Your task to perform on an android device: change notifications settings Image 0: 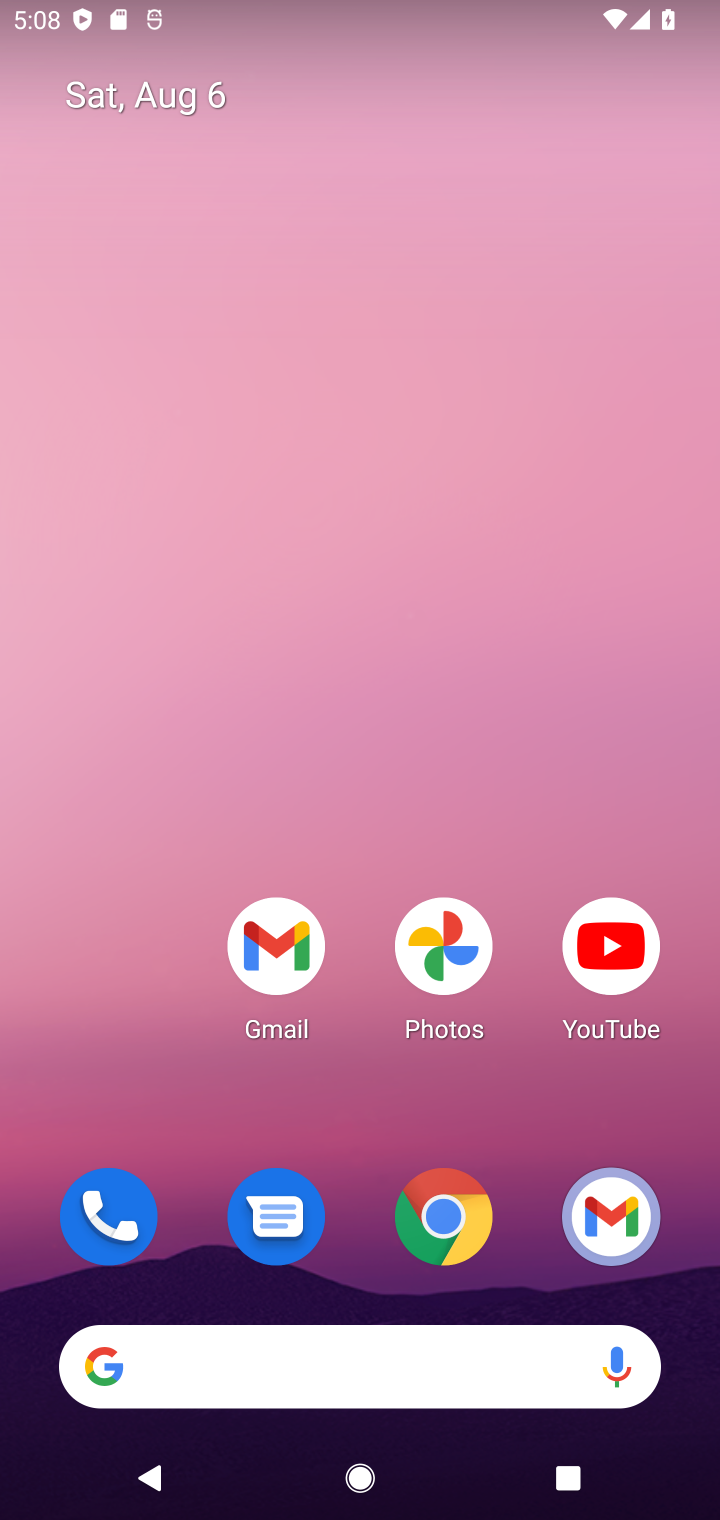
Step 0: drag from (508, 1105) to (430, 55)
Your task to perform on an android device: change notifications settings Image 1: 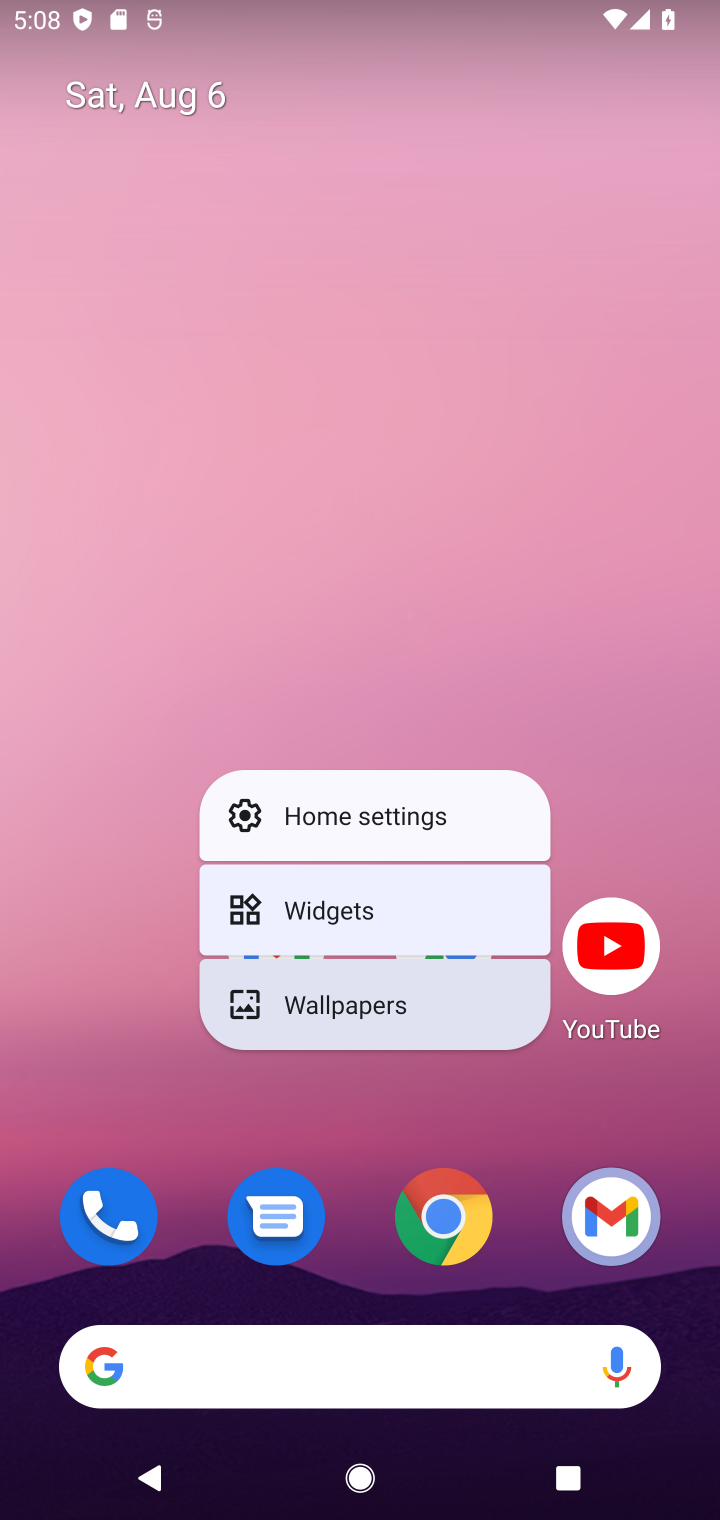
Step 1: click (506, 220)
Your task to perform on an android device: change notifications settings Image 2: 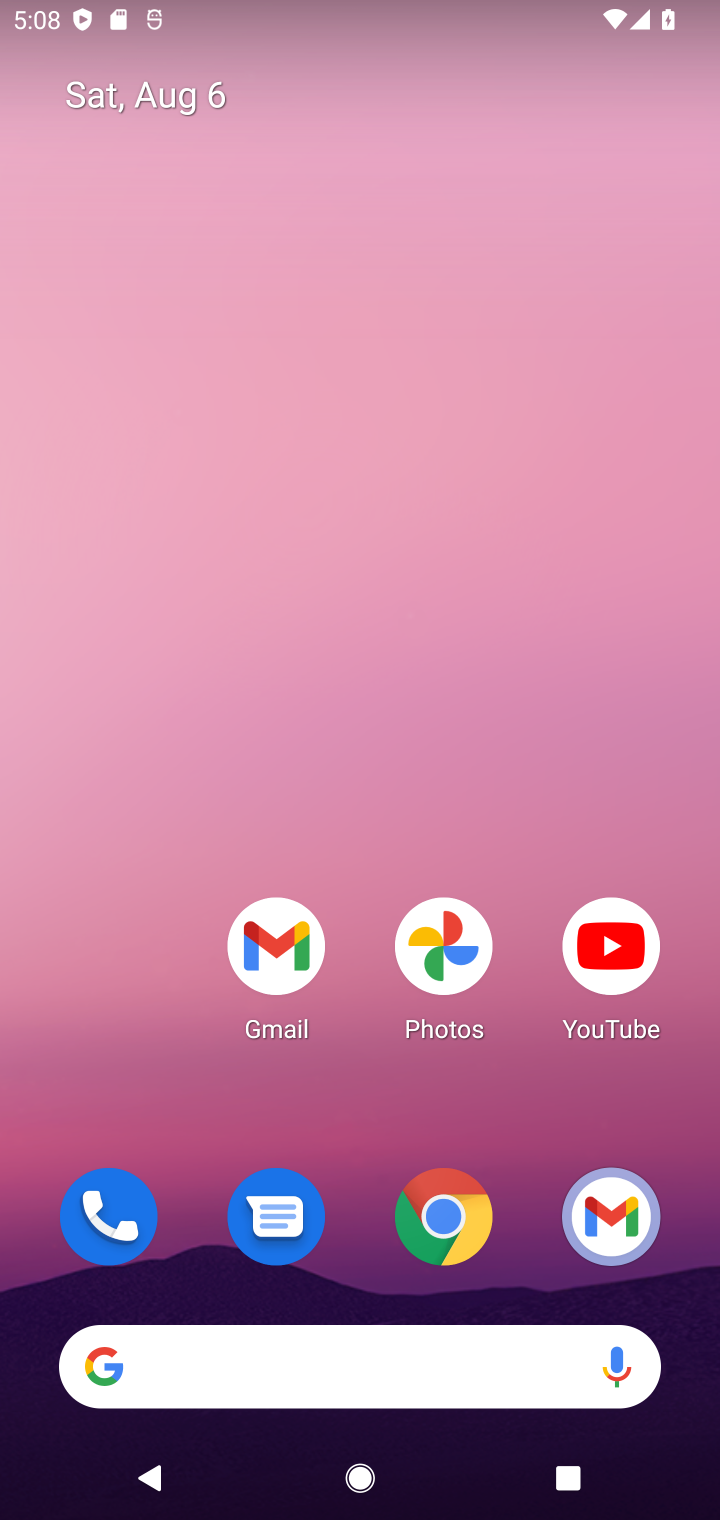
Step 2: drag from (208, 1092) to (64, 150)
Your task to perform on an android device: change notifications settings Image 3: 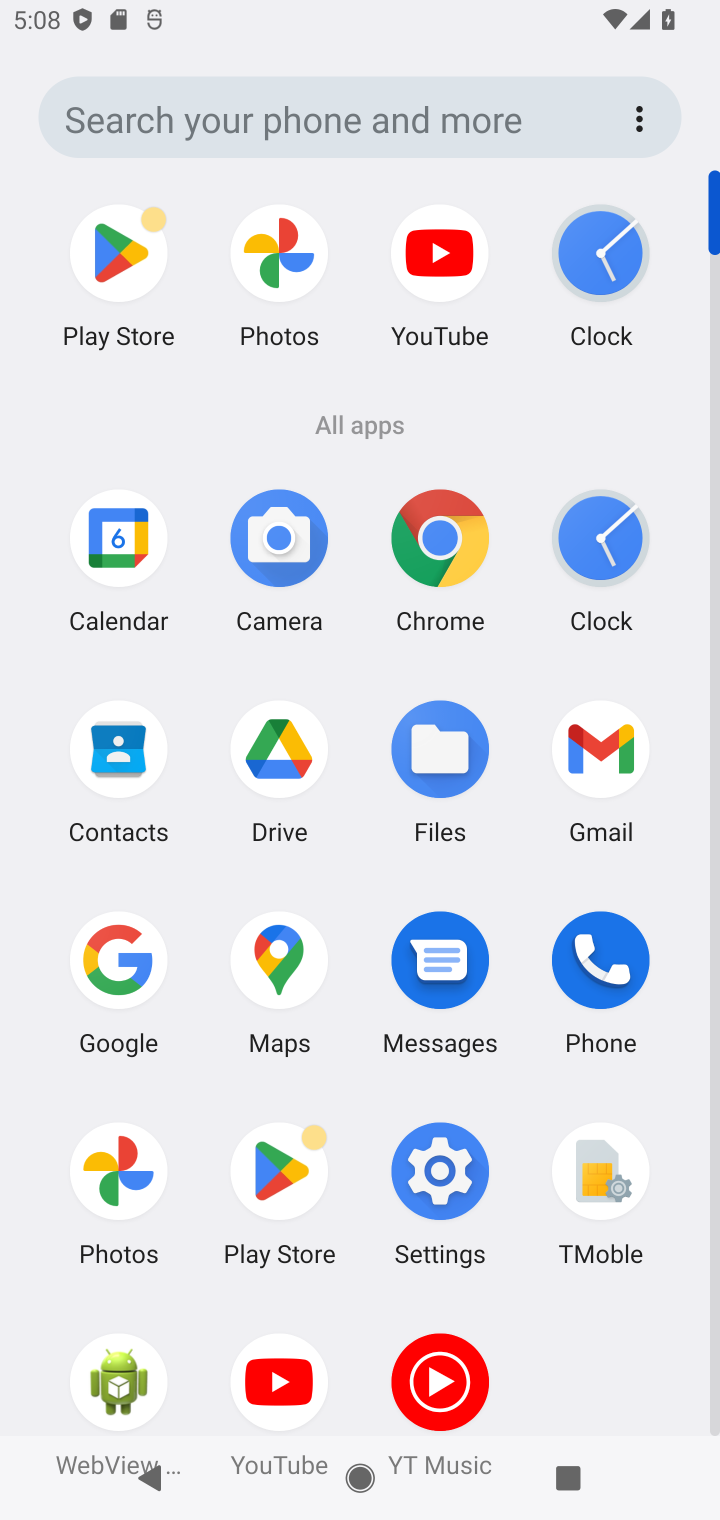
Step 3: click (404, 1176)
Your task to perform on an android device: change notifications settings Image 4: 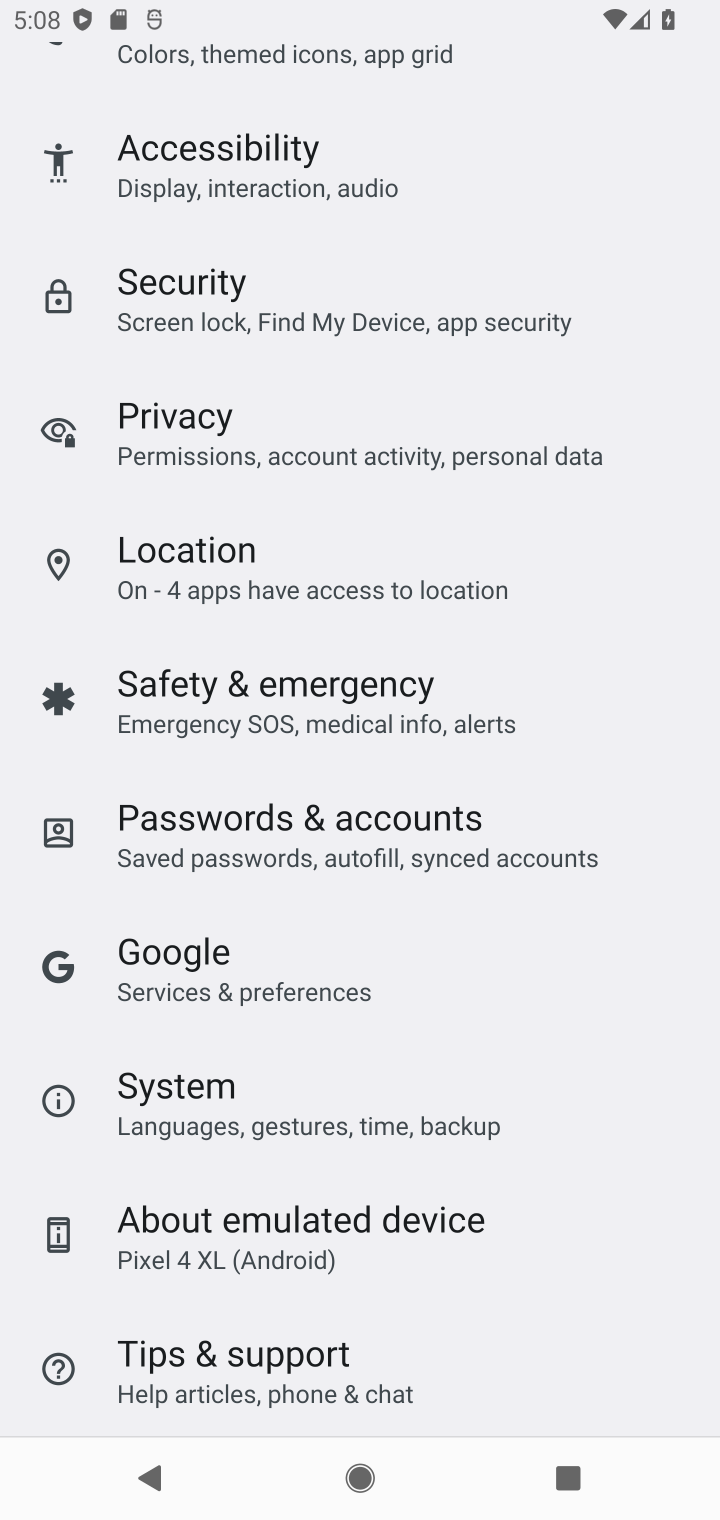
Step 4: drag from (284, 266) to (118, 1492)
Your task to perform on an android device: change notifications settings Image 5: 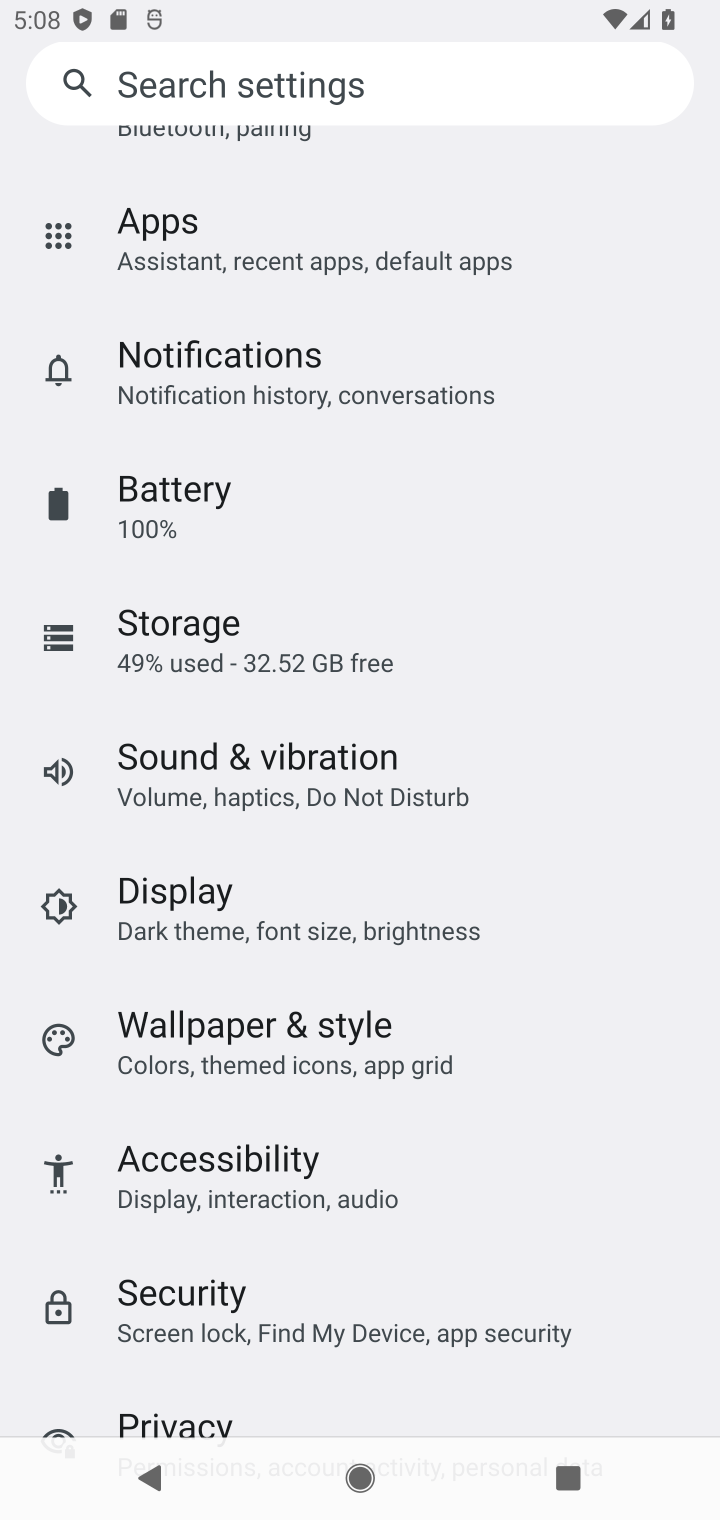
Step 5: click (240, 415)
Your task to perform on an android device: change notifications settings Image 6: 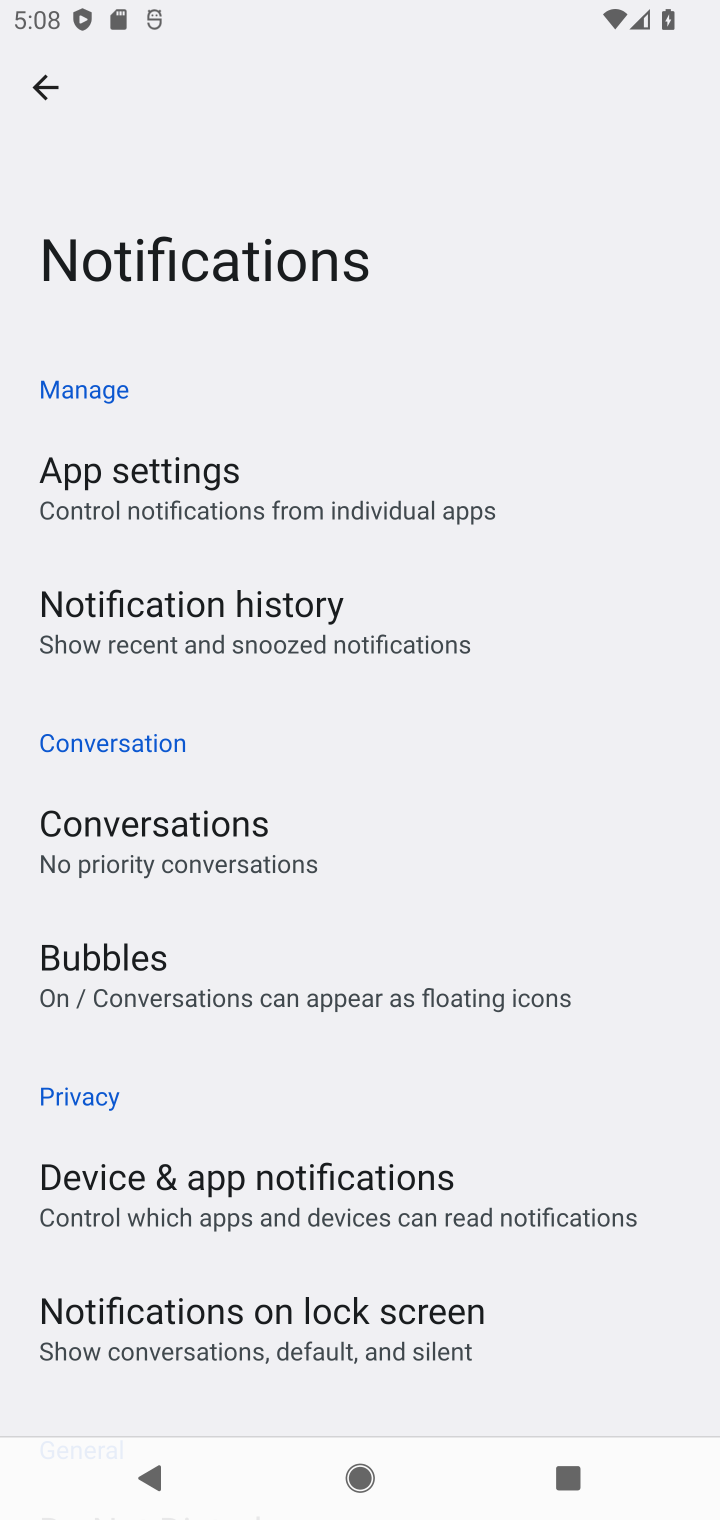
Step 6: task complete